Your task to perform on an android device: Open the Play Movies app and select the watchlist tab. Image 0: 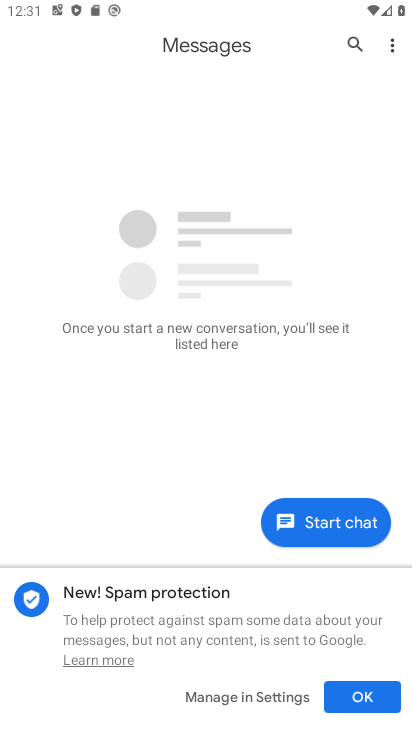
Step 0: press home button
Your task to perform on an android device: Open the Play Movies app and select the watchlist tab. Image 1: 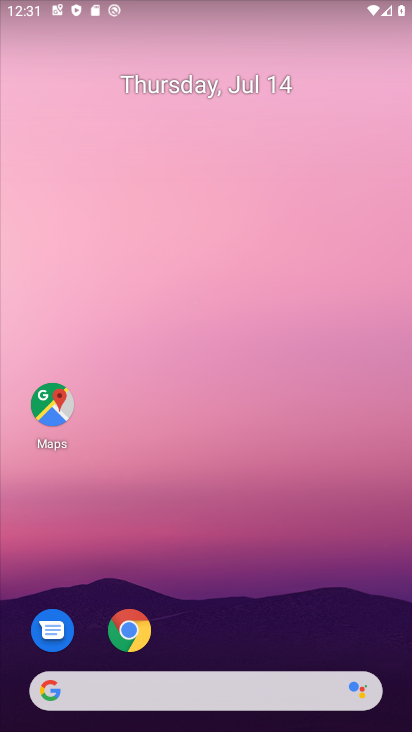
Step 1: drag from (211, 514) to (217, 264)
Your task to perform on an android device: Open the Play Movies app and select the watchlist tab. Image 2: 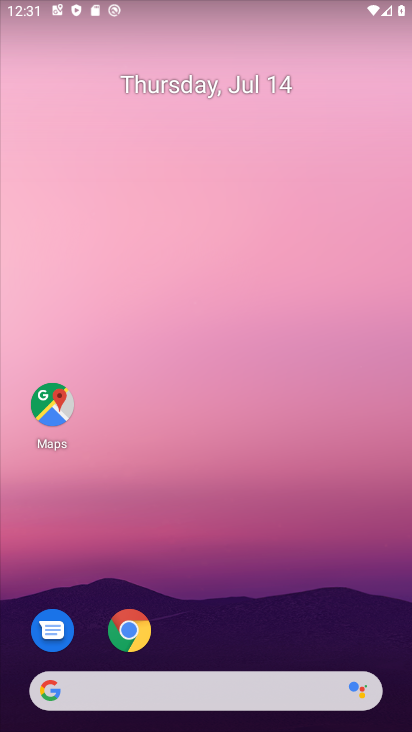
Step 2: drag from (307, 653) to (295, 162)
Your task to perform on an android device: Open the Play Movies app and select the watchlist tab. Image 3: 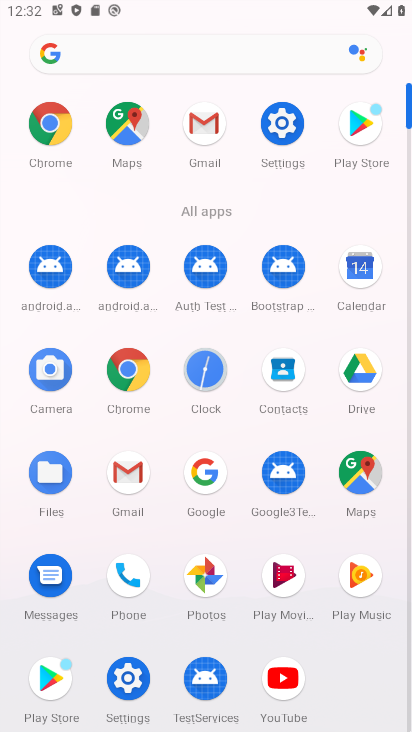
Step 3: click (290, 578)
Your task to perform on an android device: Open the Play Movies app and select the watchlist tab. Image 4: 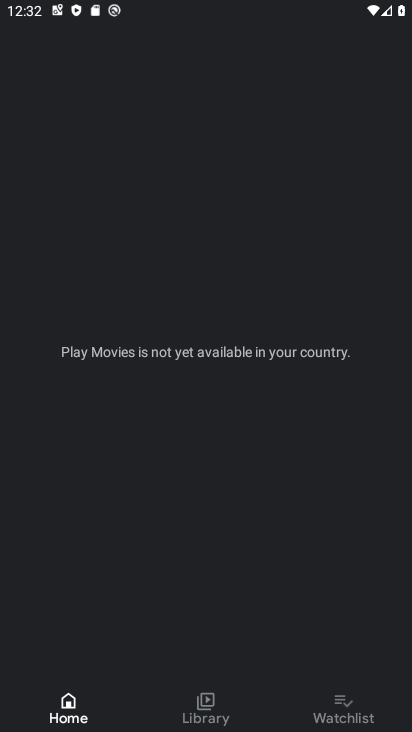
Step 4: click (280, 712)
Your task to perform on an android device: Open the Play Movies app and select the watchlist tab. Image 5: 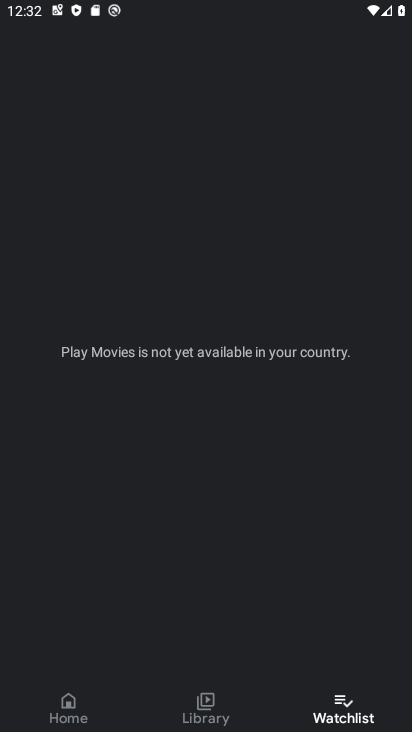
Step 5: task complete